Your task to perform on an android device: turn off location Image 0: 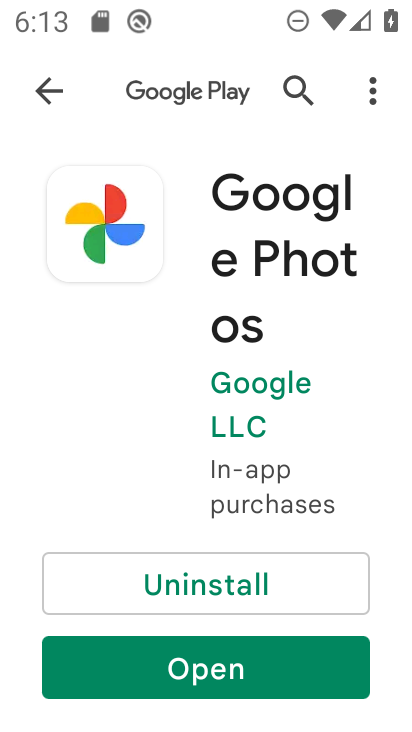
Step 0: press home button
Your task to perform on an android device: turn off location Image 1: 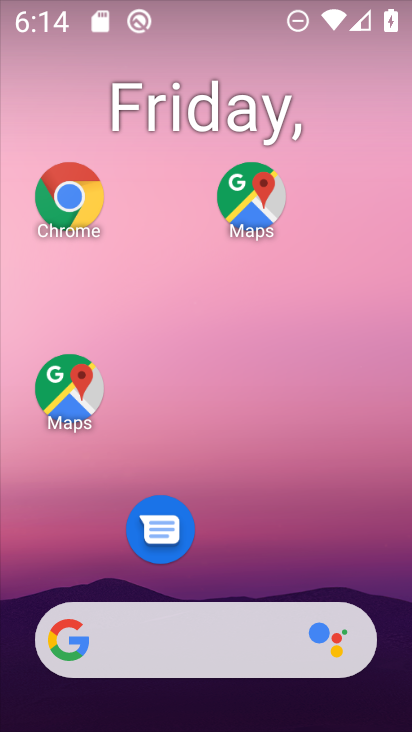
Step 1: drag from (262, 567) to (361, 43)
Your task to perform on an android device: turn off location Image 2: 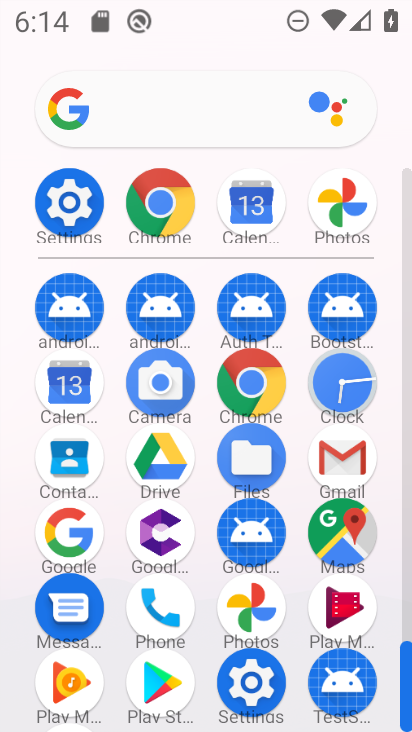
Step 2: click (66, 205)
Your task to perform on an android device: turn off location Image 3: 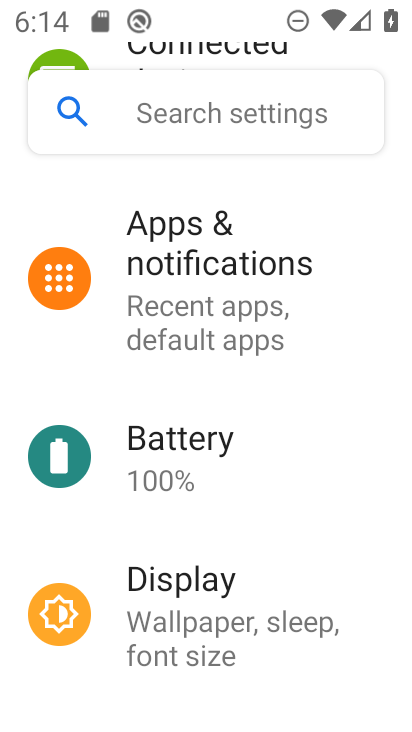
Step 3: drag from (237, 628) to (306, 245)
Your task to perform on an android device: turn off location Image 4: 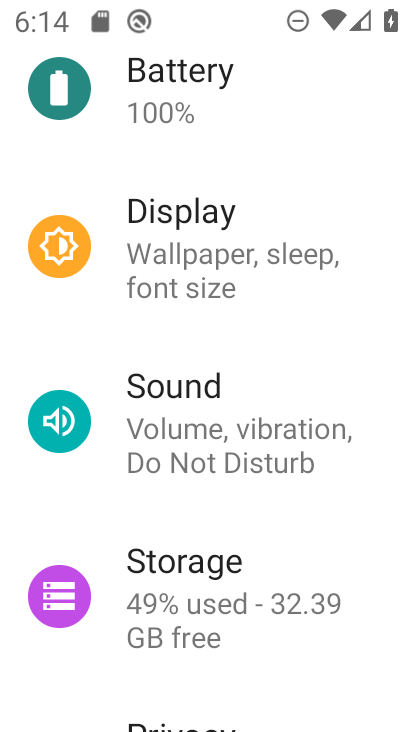
Step 4: drag from (219, 624) to (267, 315)
Your task to perform on an android device: turn off location Image 5: 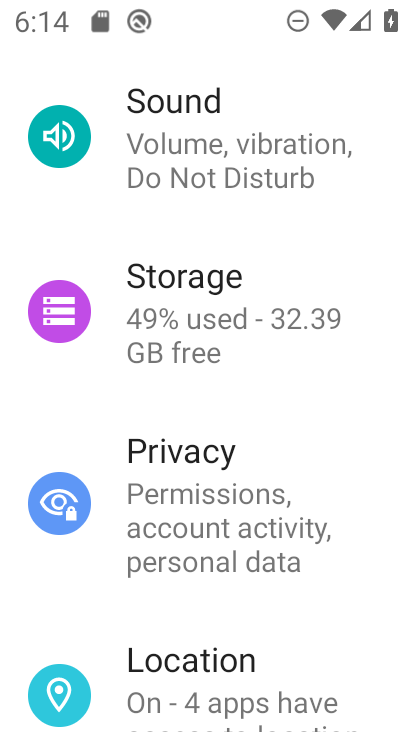
Step 5: click (187, 677)
Your task to perform on an android device: turn off location Image 6: 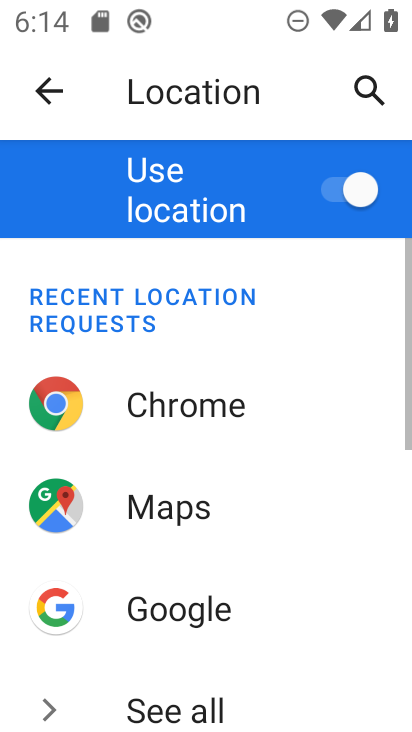
Step 6: drag from (240, 678) to (263, 114)
Your task to perform on an android device: turn off location Image 7: 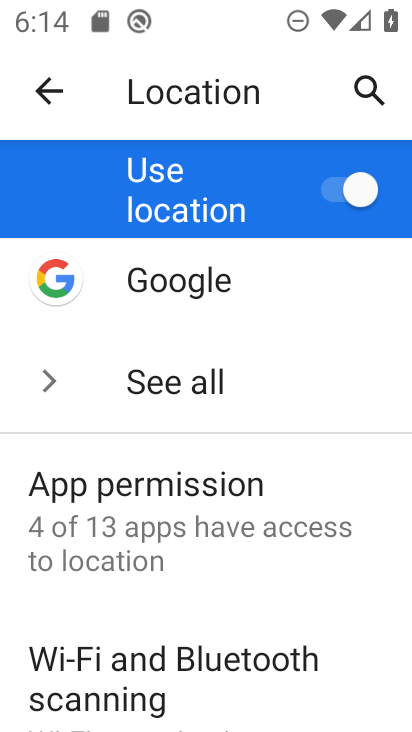
Step 7: click (327, 197)
Your task to perform on an android device: turn off location Image 8: 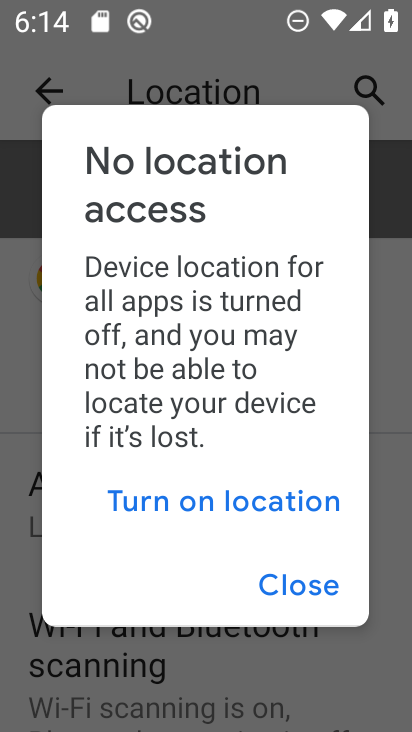
Step 8: task complete